Your task to perform on an android device: Open calendar and show me the fourth week of next month Image 0: 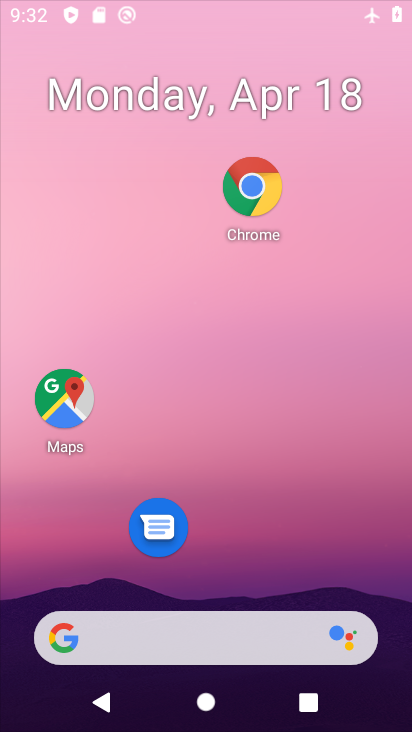
Step 0: click (281, 43)
Your task to perform on an android device: Open calendar and show me the fourth week of next month Image 1: 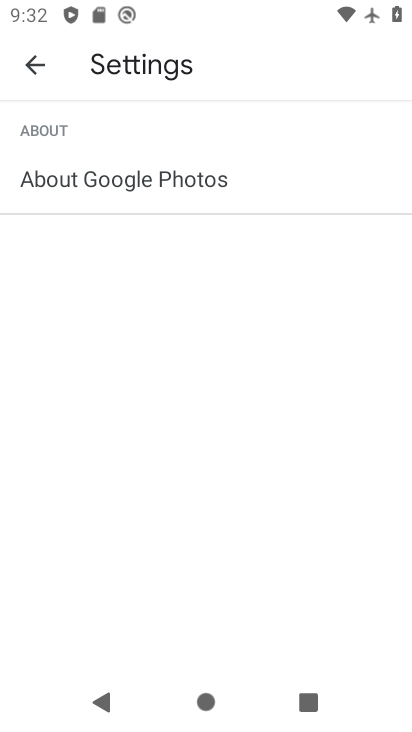
Step 1: press home button
Your task to perform on an android device: Open calendar and show me the fourth week of next month Image 2: 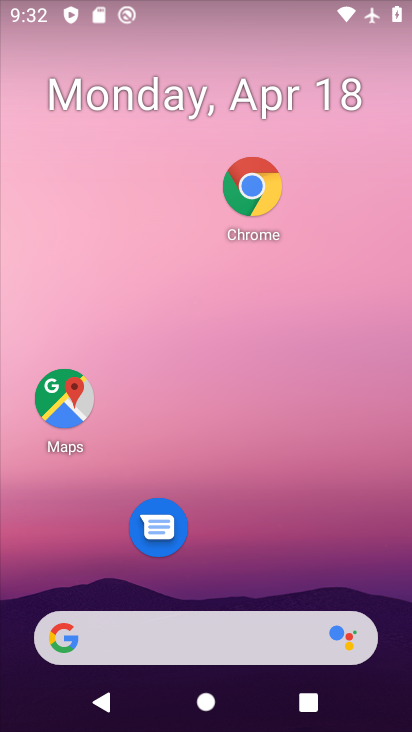
Step 2: drag from (245, 466) to (263, 41)
Your task to perform on an android device: Open calendar and show me the fourth week of next month Image 3: 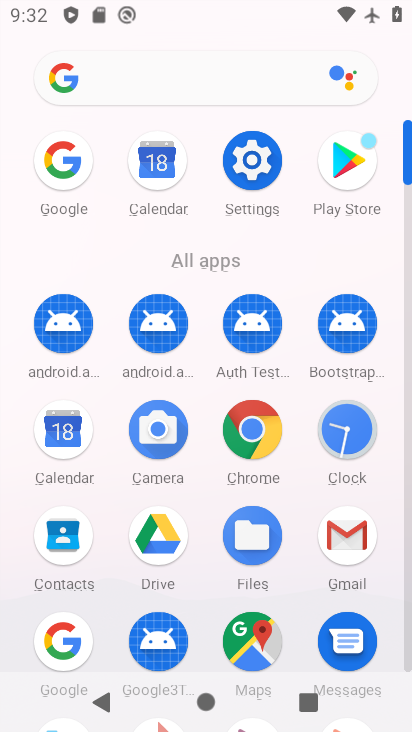
Step 3: click (55, 448)
Your task to perform on an android device: Open calendar and show me the fourth week of next month Image 4: 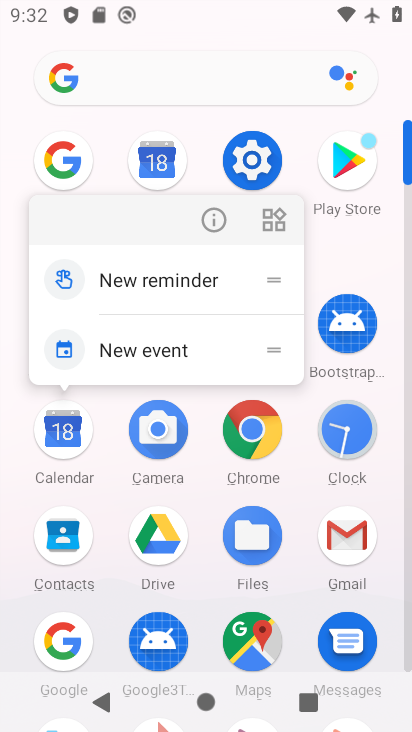
Step 4: click (55, 447)
Your task to perform on an android device: Open calendar and show me the fourth week of next month Image 5: 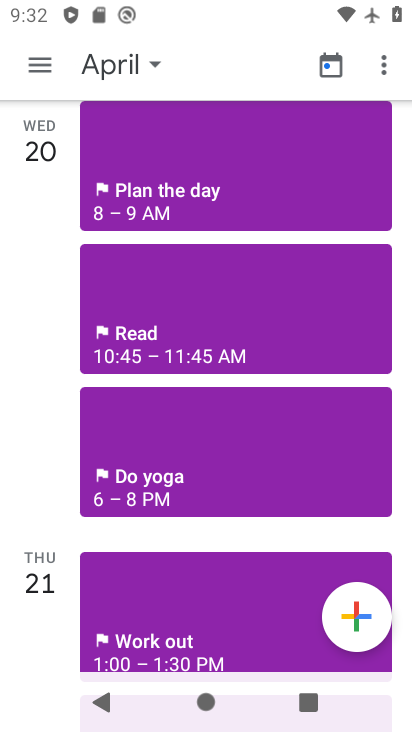
Step 5: click (28, 70)
Your task to perform on an android device: Open calendar and show me the fourth week of next month Image 6: 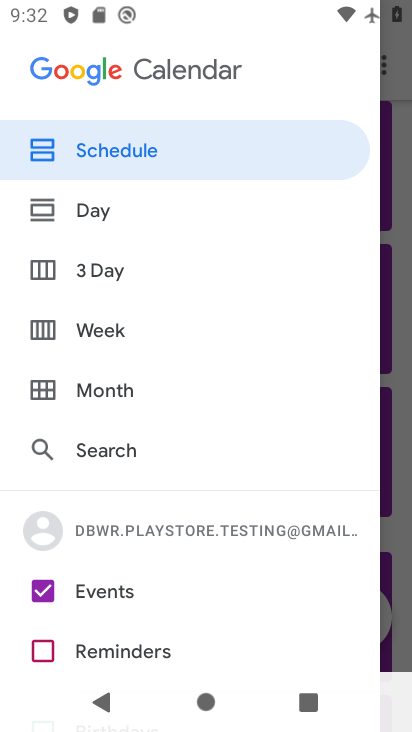
Step 6: click (110, 322)
Your task to perform on an android device: Open calendar and show me the fourth week of next month Image 7: 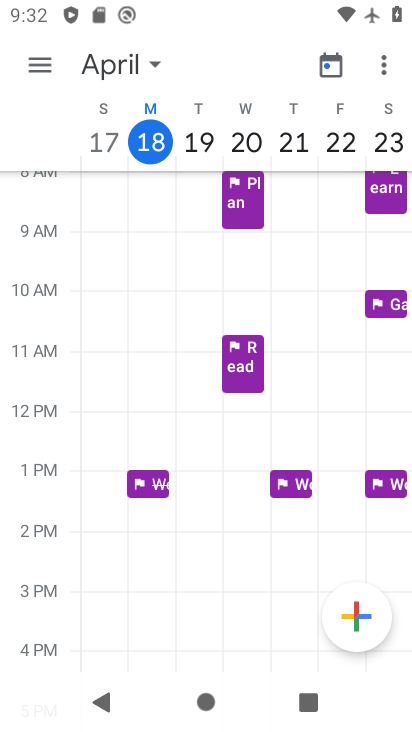
Step 7: click (145, 57)
Your task to perform on an android device: Open calendar and show me the fourth week of next month Image 8: 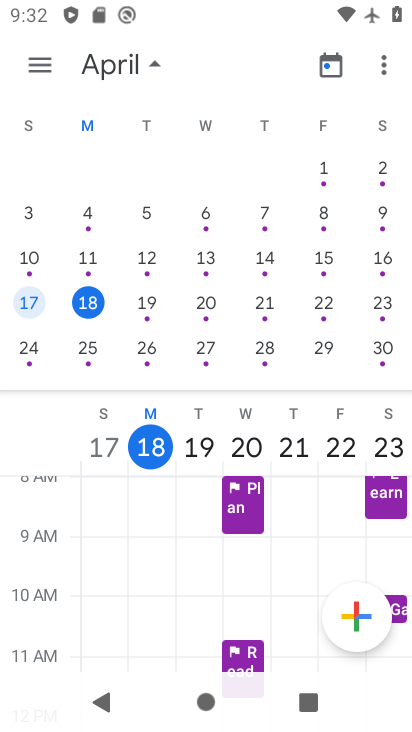
Step 8: drag from (397, 202) to (84, 164)
Your task to perform on an android device: Open calendar and show me the fourth week of next month Image 9: 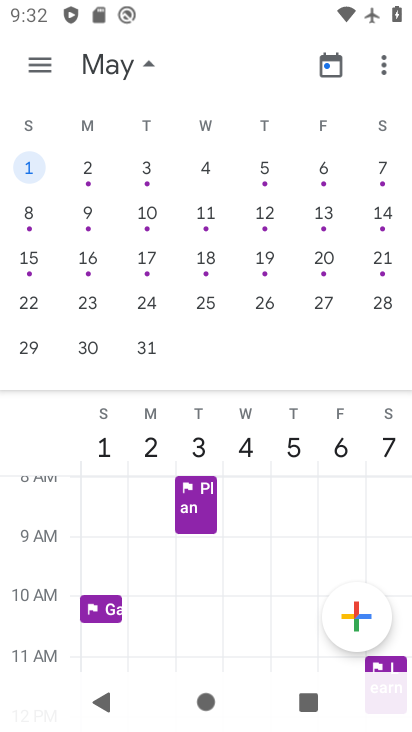
Step 9: click (21, 298)
Your task to perform on an android device: Open calendar and show me the fourth week of next month Image 10: 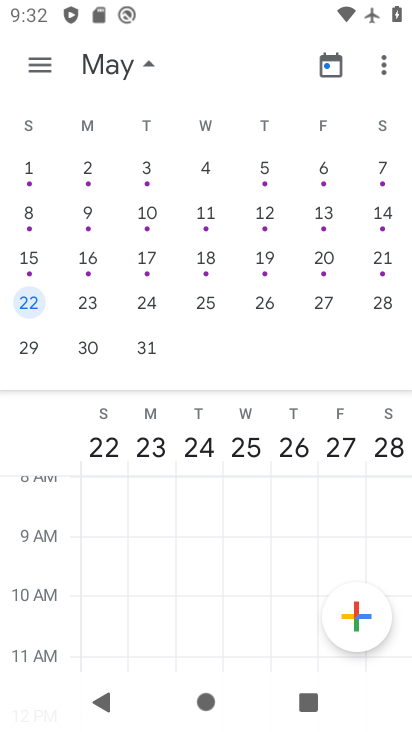
Step 10: task complete